Your task to perform on an android device: change the clock style Image 0: 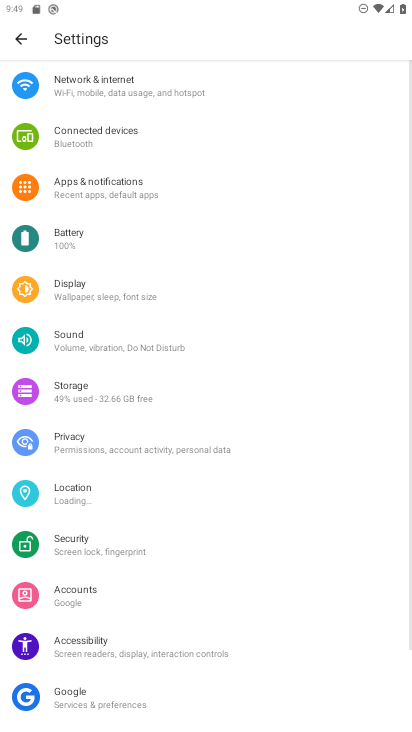
Step 0: press home button
Your task to perform on an android device: change the clock style Image 1: 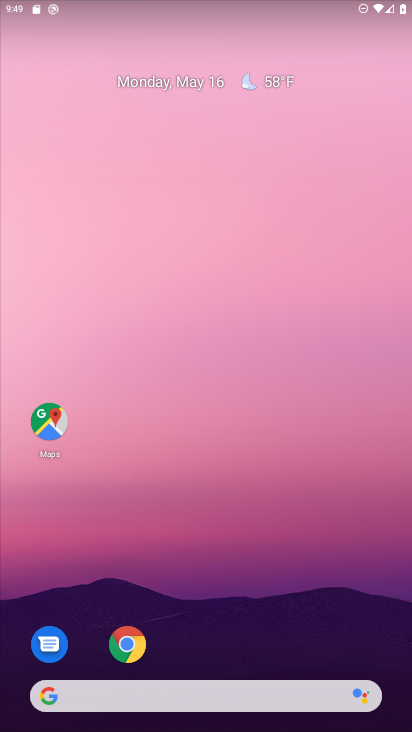
Step 1: drag from (213, 683) to (205, 121)
Your task to perform on an android device: change the clock style Image 2: 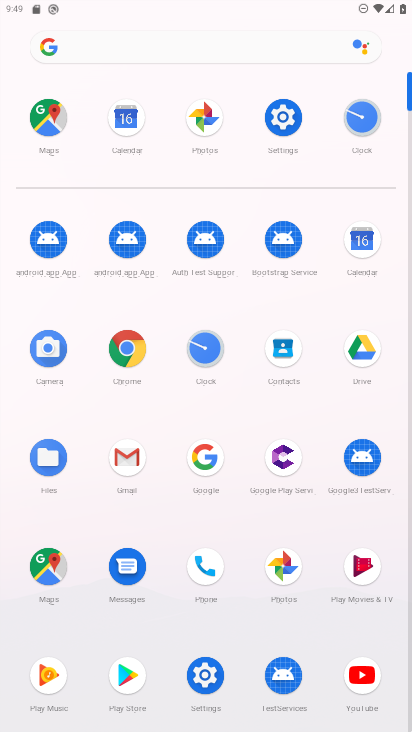
Step 2: click (188, 352)
Your task to perform on an android device: change the clock style Image 3: 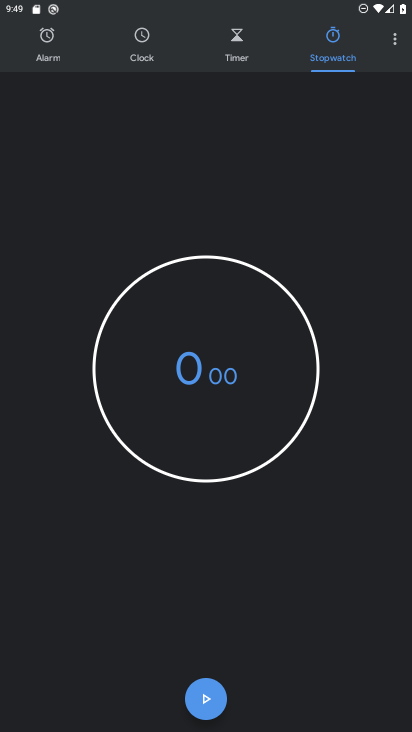
Step 3: click (400, 42)
Your task to perform on an android device: change the clock style Image 4: 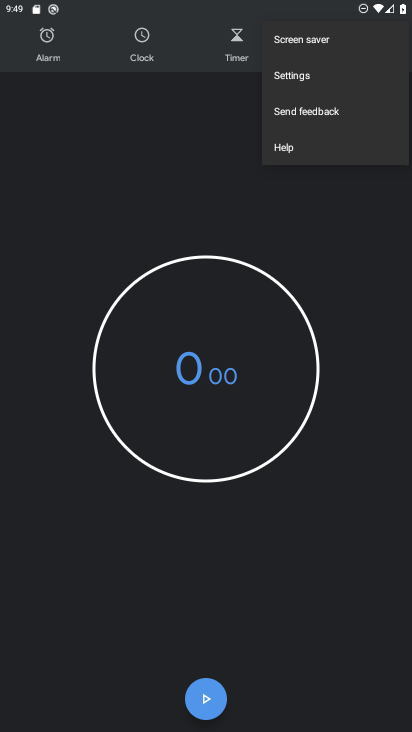
Step 4: click (321, 75)
Your task to perform on an android device: change the clock style Image 5: 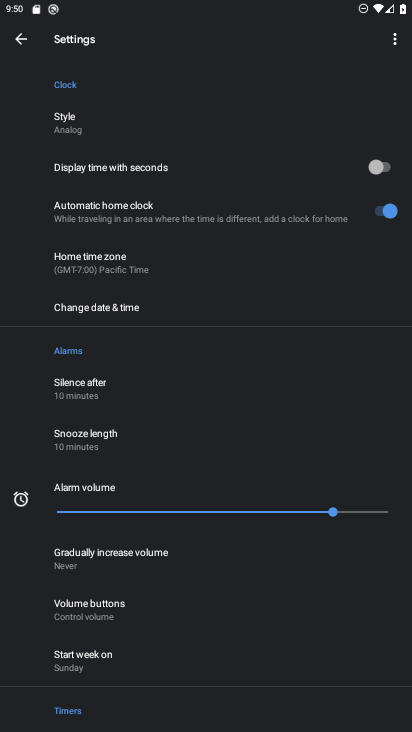
Step 5: click (73, 131)
Your task to perform on an android device: change the clock style Image 6: 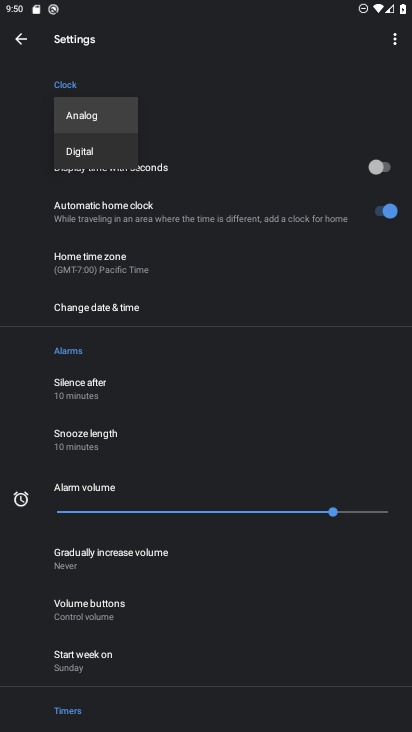
Step 6: click (103, 152)
Your task to perform on an android device: change the clock style Image 7: 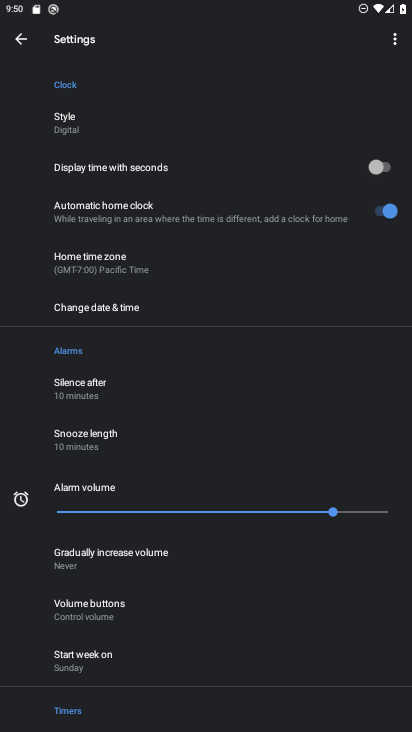
Step 7: task complete